Your task to perform on an android device: Open ESPN.com Image 0: 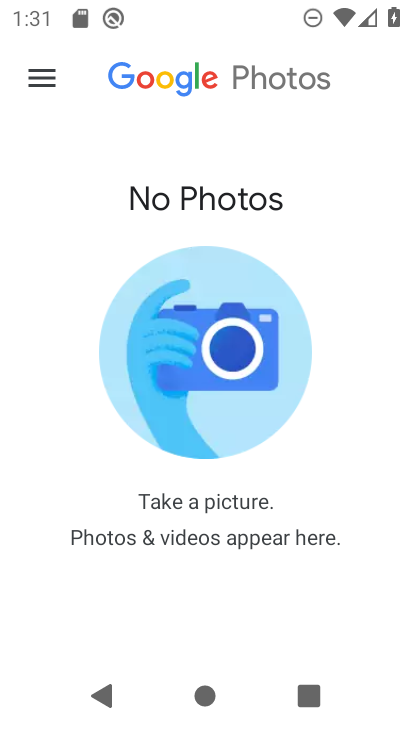
Step 0: press home button
Your task to perform on an android device: Open ESPN.com Image 1: 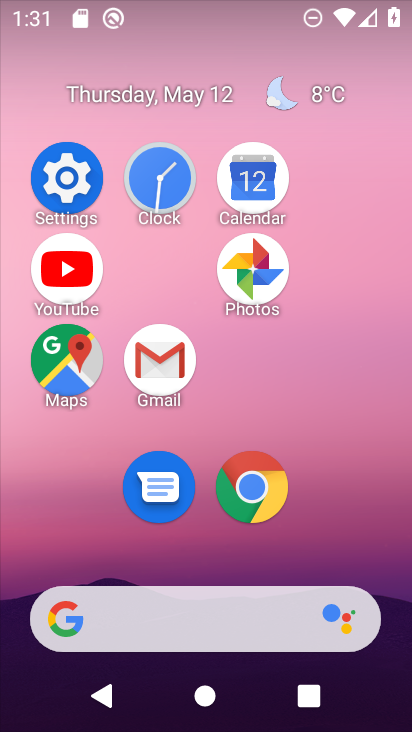
Step 1: click (267, 484)
Your task to perform on an android device: Open ESPN.com Image 2: 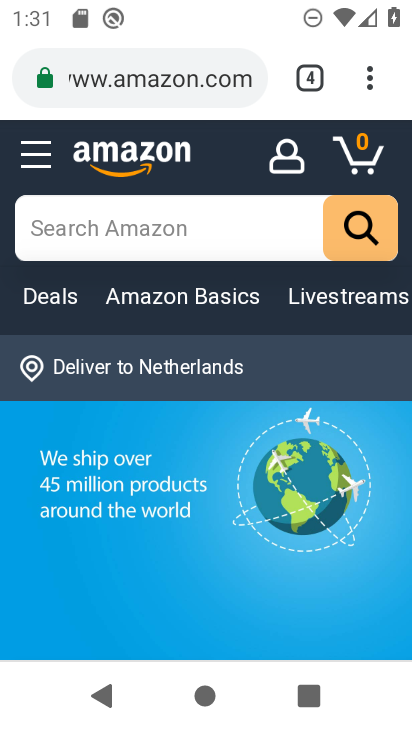
Step 2: click (305, 70)
Your task to perform on an android device: Open ESPN.com Image 3: 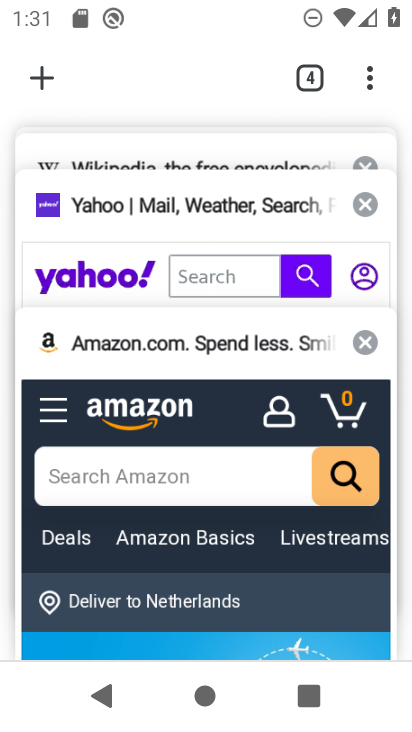
Step 3: click (37, 83)
Your task to perform on an android device: Open ESPN.com Image 4: 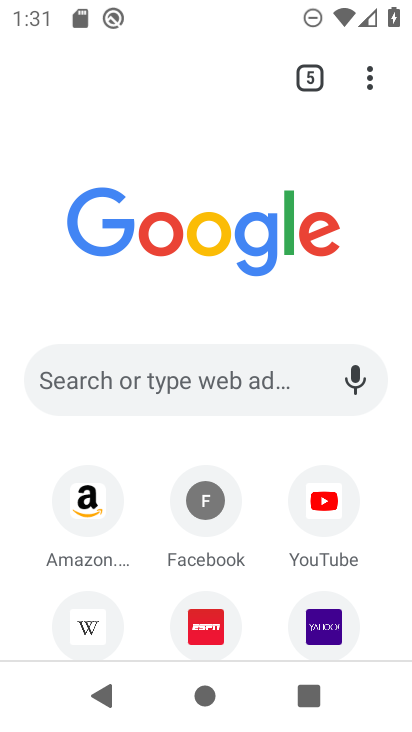
Step 4: click (209, 629)
Your task to perform on an android device: Open ESPN.com Image 5: 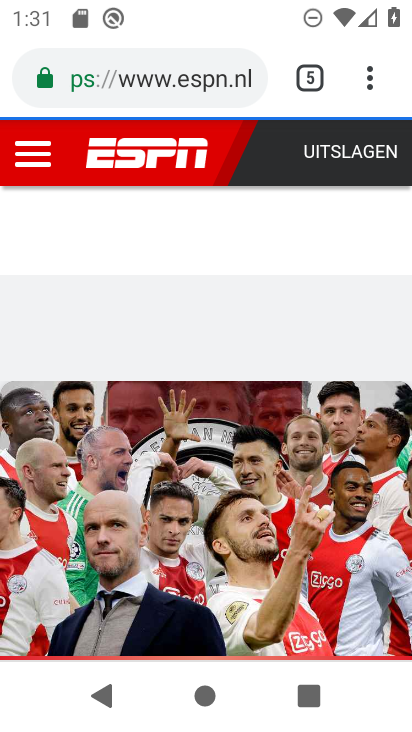
Step 5: task complete